Your task to perform on an android device: turn on improve location accuracy Image 0: 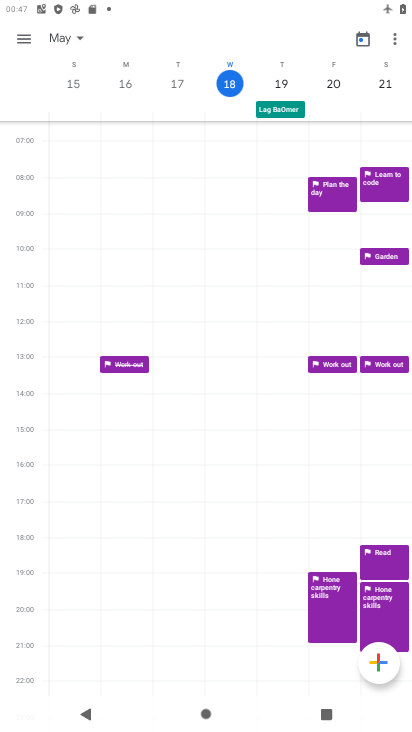
Step 0: press home button
Your task to perform on an android device: turn on improve location accuracy Image 1: 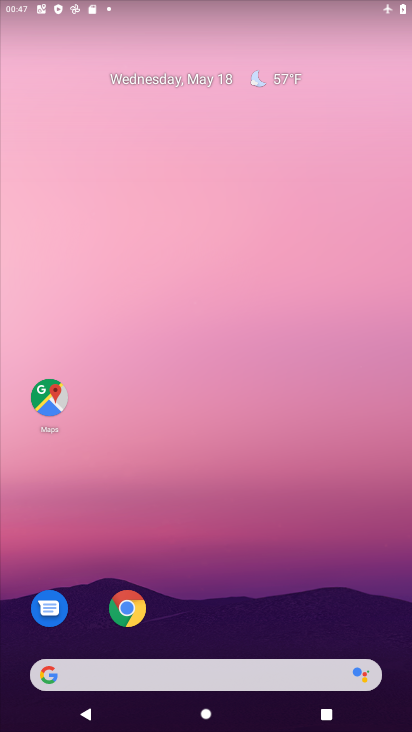
Step 1: drag from (253, 576) to (181, 160)
Your task to perform on an android device: turn on improve location accuracy Image 2: 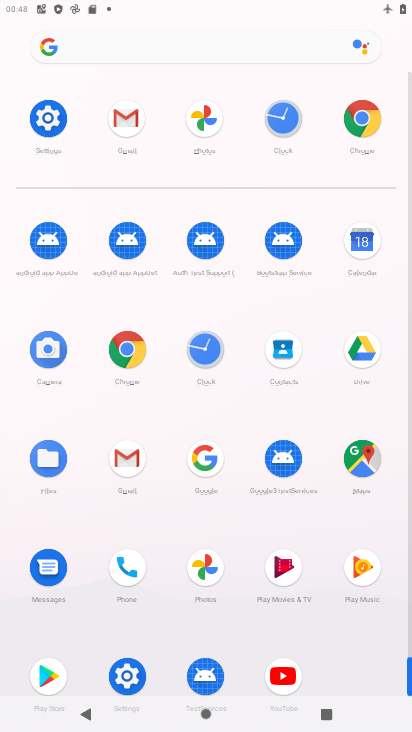
Step 2: click (46, 114)
Your task to perform on an android device: turn on improve location accuracy Image 3: 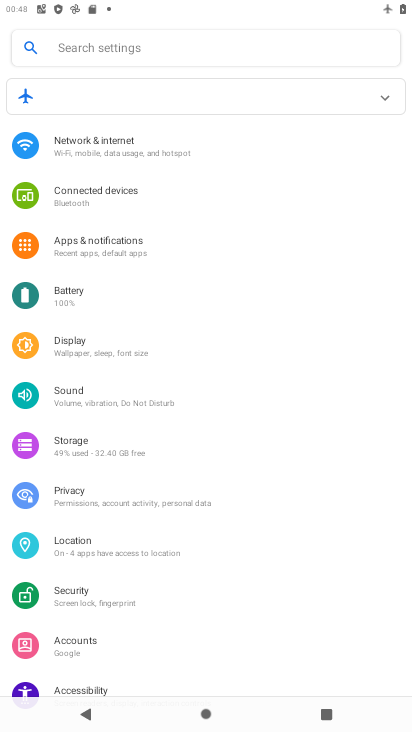
Step 3: click (74, 540)
Your task to perform on an android device: turn on improve location accuracy Image 4: 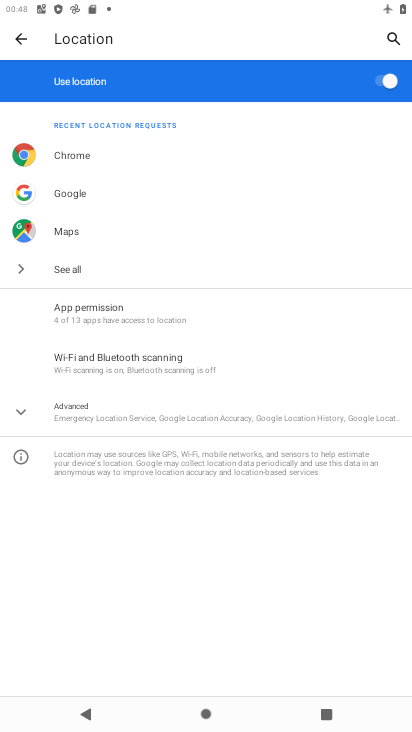
Step 4: click (57, 405)
Your task to perform on an android device: turn on improve location accuracy Image 5: 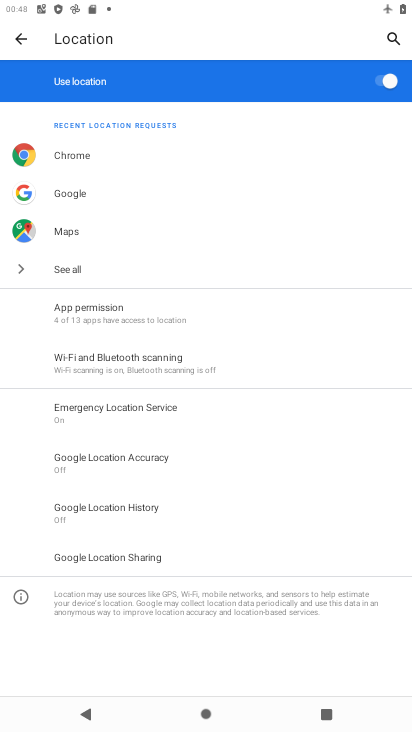
Step 5: click (132, 455)
Your task to perform on an android device: turn on improve location accuracy Image 6: 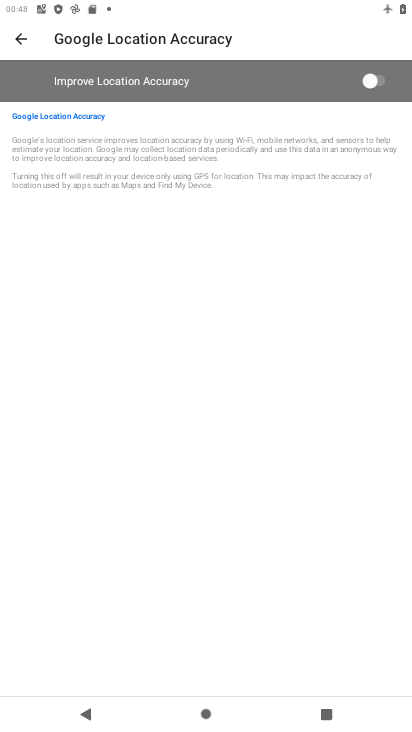
Step 6: click (365, 85)
Your task to perform on an android device: turn on improve location accuracy Image 7: 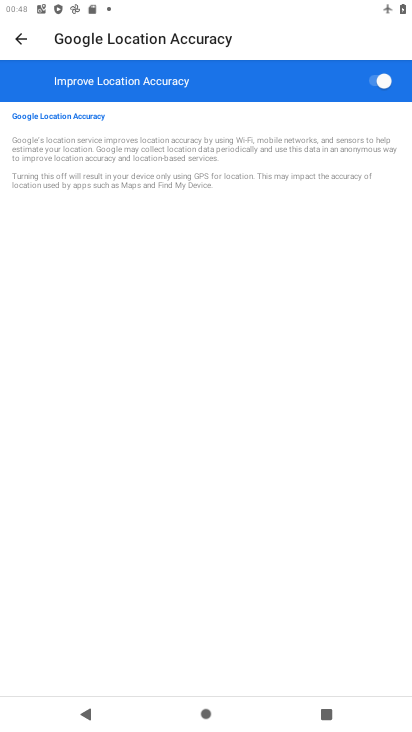
Step 7: task complete